Your task to perform on an android device: Open Wikipedia Image 0: 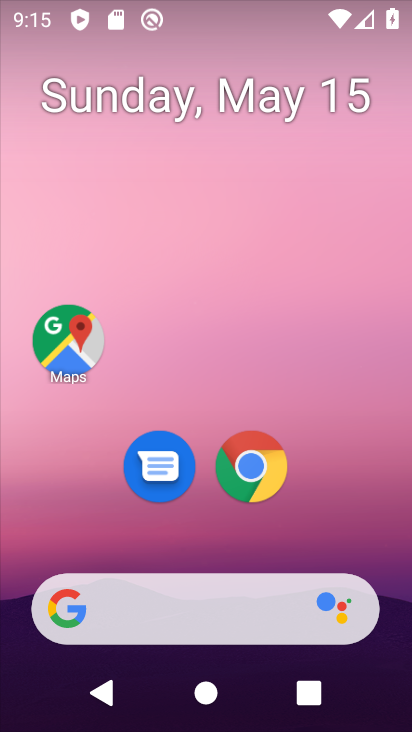
Step 0: click (256, 459)
Your task to perform on an android device: Open Wikipedia Image 1: 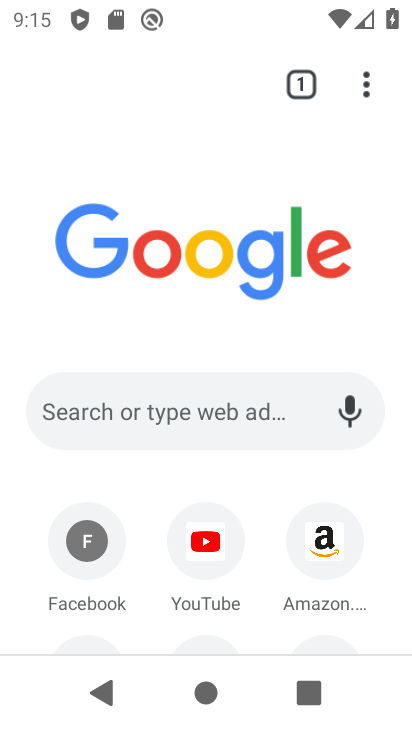
Step 1: drag from (288, 475) to (243, 36)
Your task to perform on an android device: Open Wikipedia Image 2: 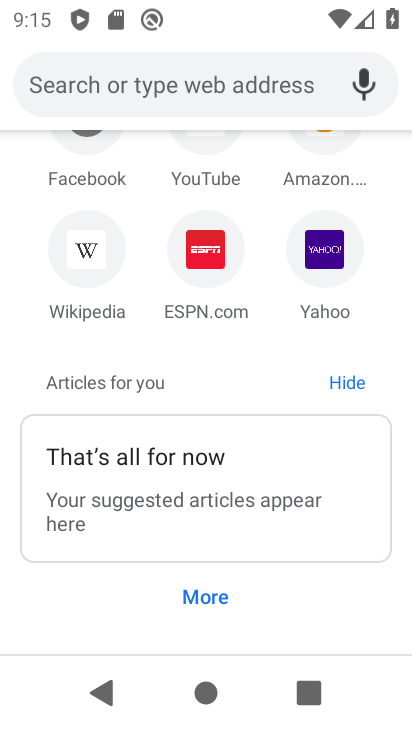
Step 2: click (77, 277)
Your task to perform on an android device: Open Wikipedia Image 3: 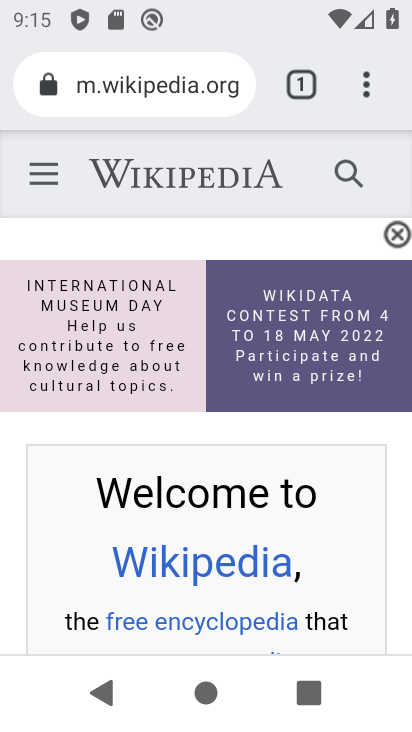
Step 3: task complete